Your task to perform on an android device: Show me popular videos on Youtube Image 0: 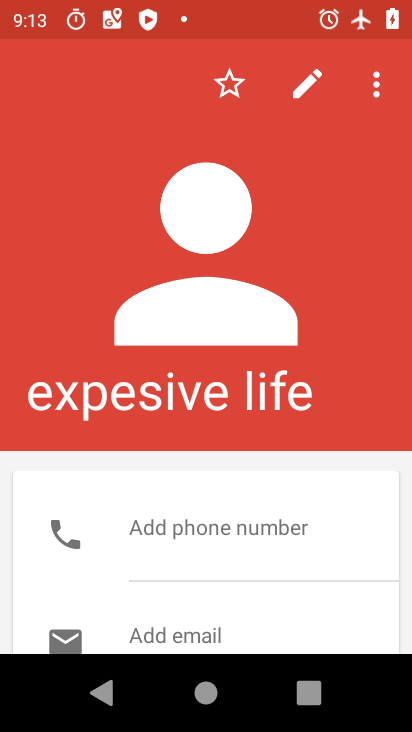
Step 0: press home button
Your task to perform on an android device: Show me popular videos on Youtube Image 1: 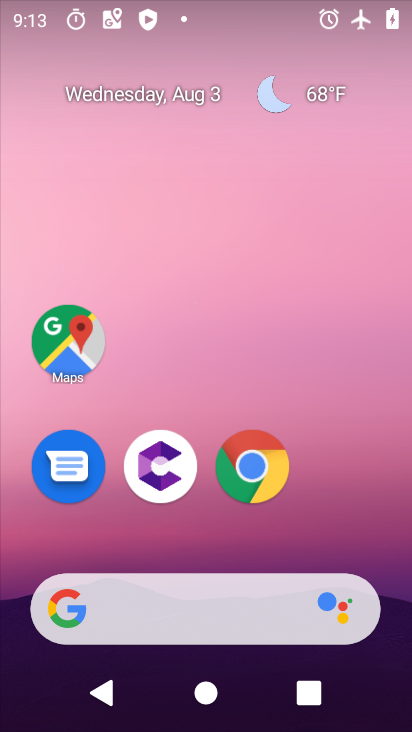
Step 1: drag from (349, 533) to (344, 101)
Your task to perform on an android device: Show me popular videos on Youtube Image 2: 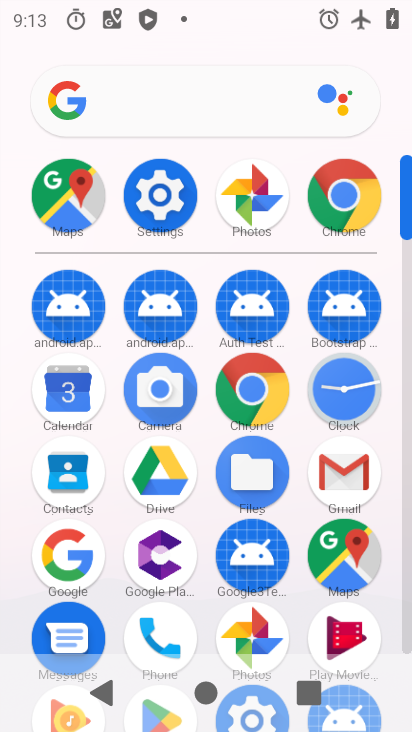
Step 2: drag from (306, 610) to (316, 319)
Your task to perform on an android device: Show me popular videos on Youtube Image 3: 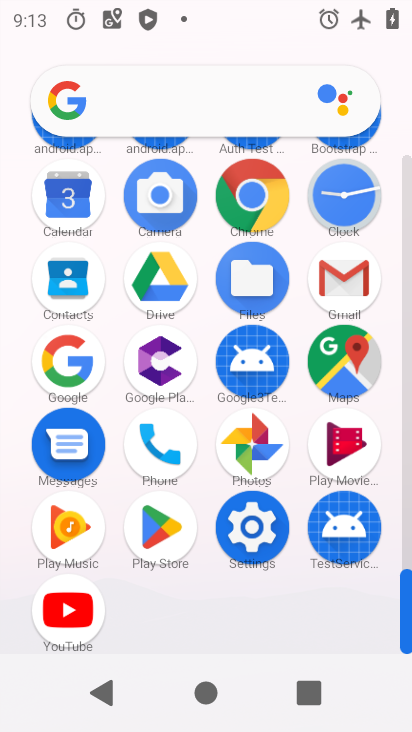
Step 3: click (61, 617)
Your task to perform on an android device: Show me popular videos on Youtube Image 4: 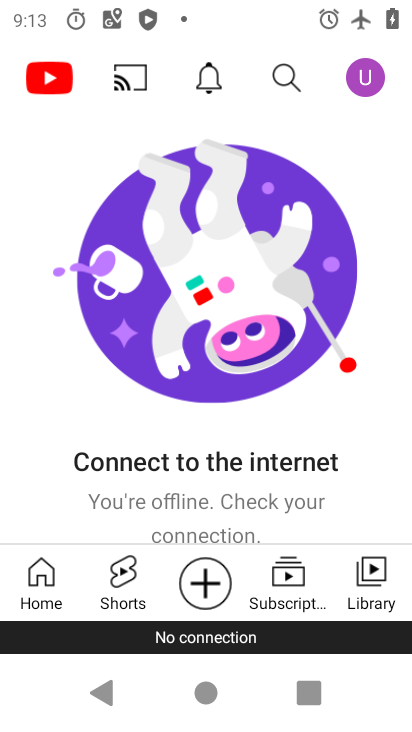
Step 4: task complete